Your task to perform on an android device: Google the capital of Peru Image 0: 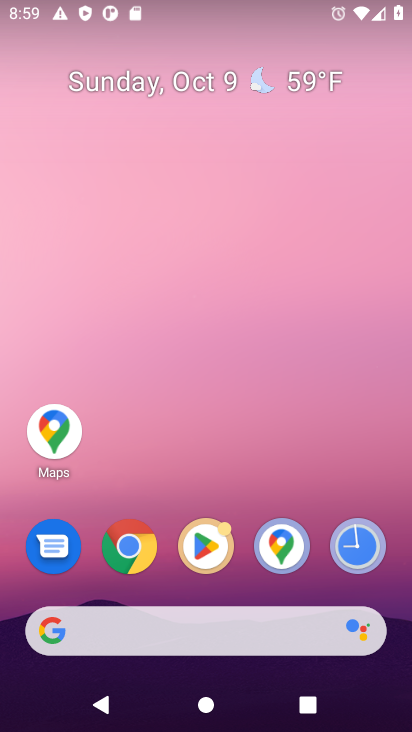
Step 0: click (131, 556)
Your task to perform on an android device: Google the capital of Peru Image 1: 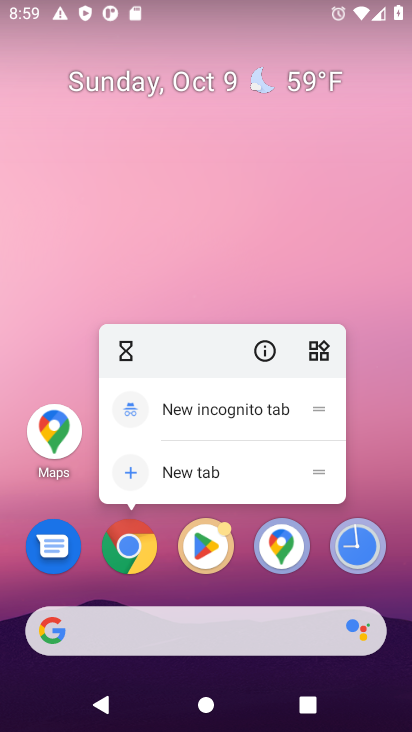
Step 1: click (137, 546)
Your task to perform on an android device: Google the capital of Peru Image 2: 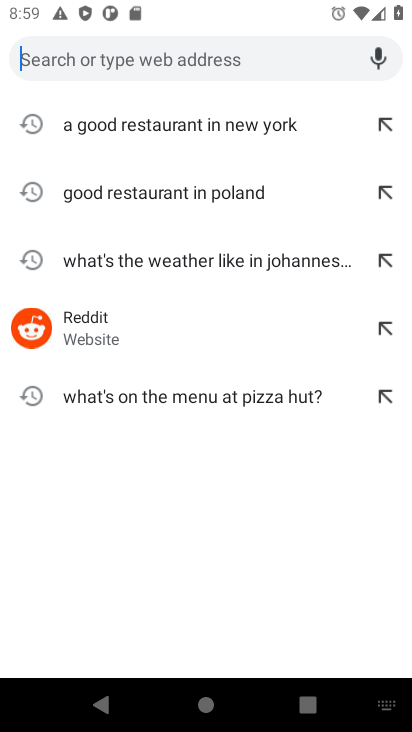
Step 2: type "capital of peru"
Your task to perform on an android device: Google the capital of Peru Image 3: 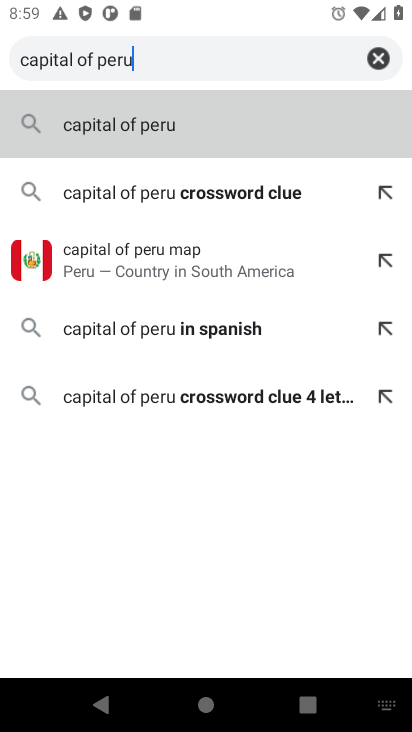
Step 3: type ""
Your task to perform on an android device: Google the capital of Peru Image 4: 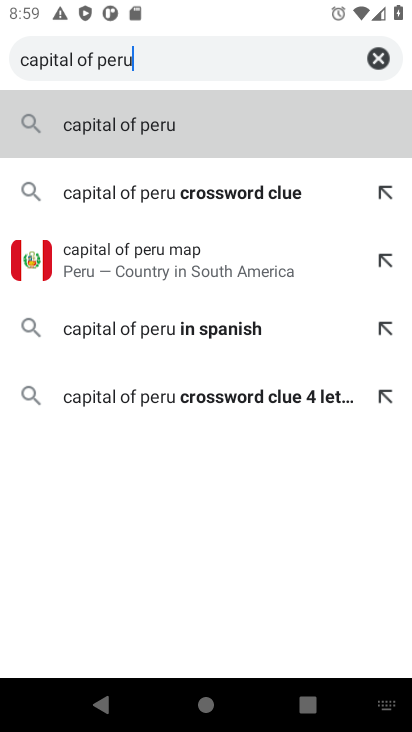
Step 4: press enter
Your task to perform on an android device: Google the capital of Peru Image 5: 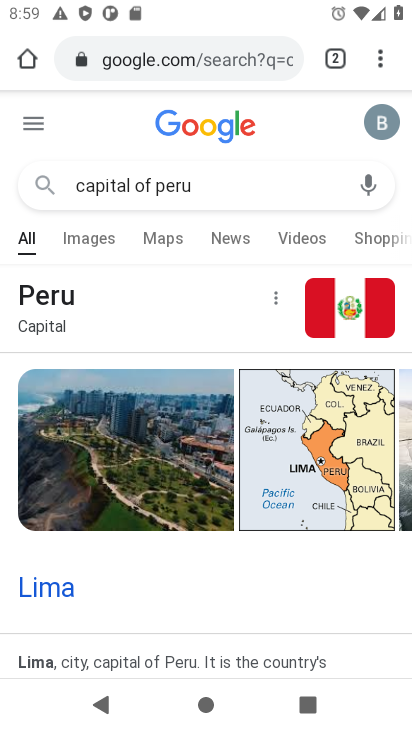
Step 5: task complete